Your task to perform on an android device: search for starred emails in the gmail app Image 0: 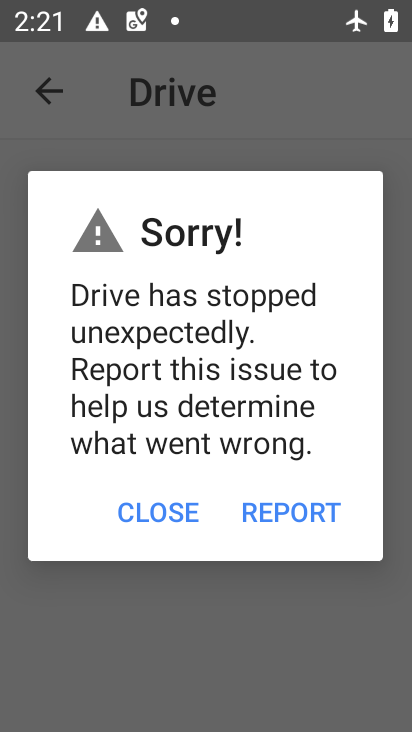
Step 0: press home button
Your task to perform on an android device: search for starred emails in the gmail app Image 1: 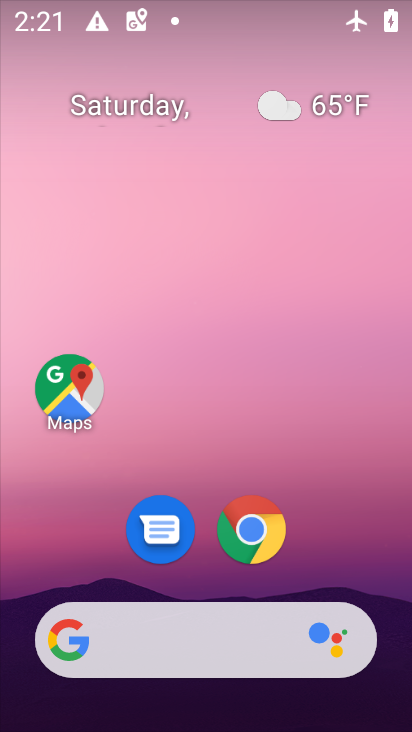
Step 1: drag from (368, 578) to (258, 104)
Your task to perform on an android device: search for starred emails in the gmail app Image 2: 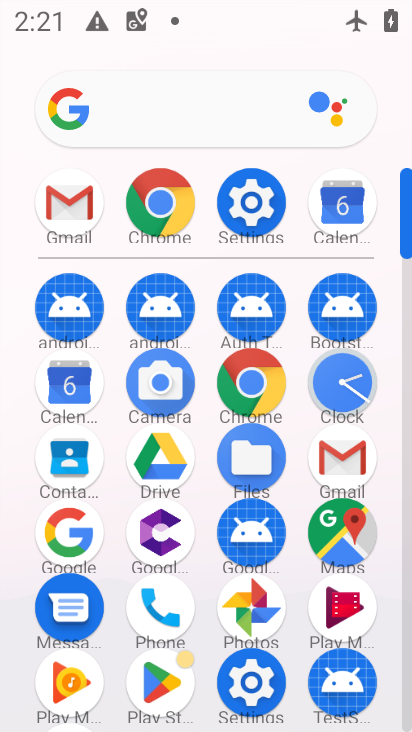
Step 2: click (77, 194)
Your task to perform on an android device: search for starred emails in the gmail app Image 3: 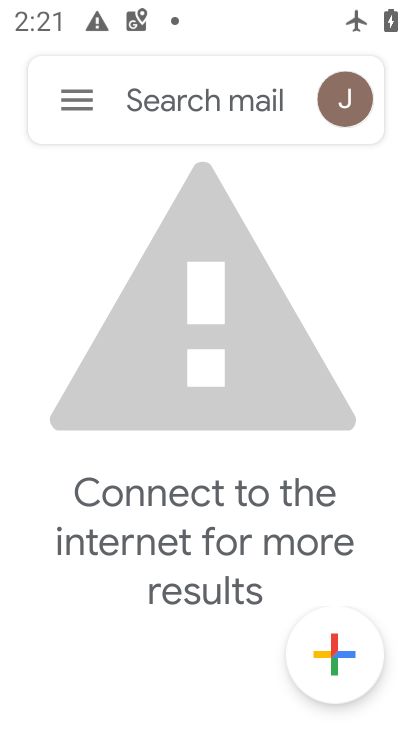
Step 3: click (88, 112)
Your task to perform on an android device: search for starred emails in the gmail app Image 4: 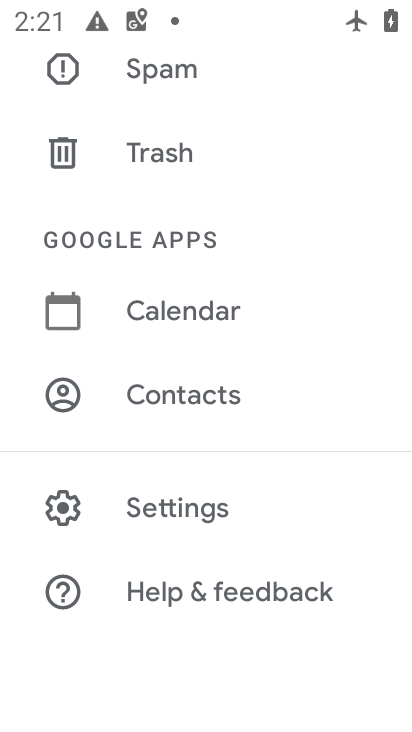
Step 4: drag from (170, 131) to (326, 583)
Your task to perform on an android device: search for starred emails in the gmail app Image 5: 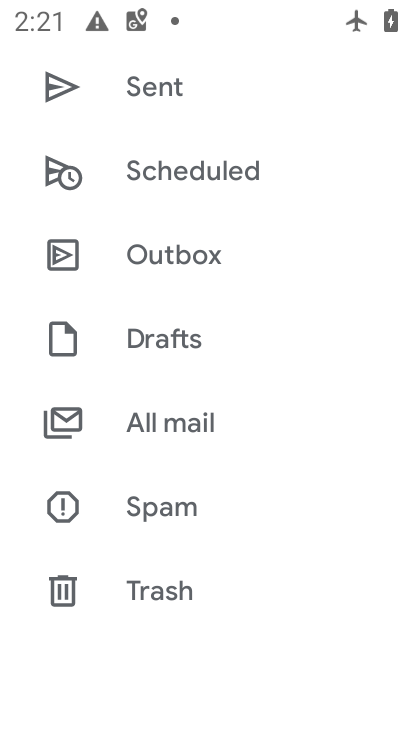
Step 5: drag from (211, 155) to (218, 692)
Your task to perform on an android device: search for starred emails in the gmail app Image 6: 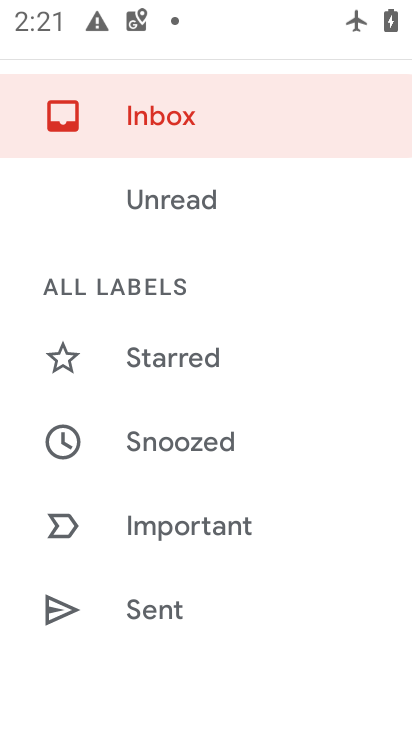
Step 6: click (217, 343)
Your task to perform on an android device: search for starred emails in the gmail app Image 7: 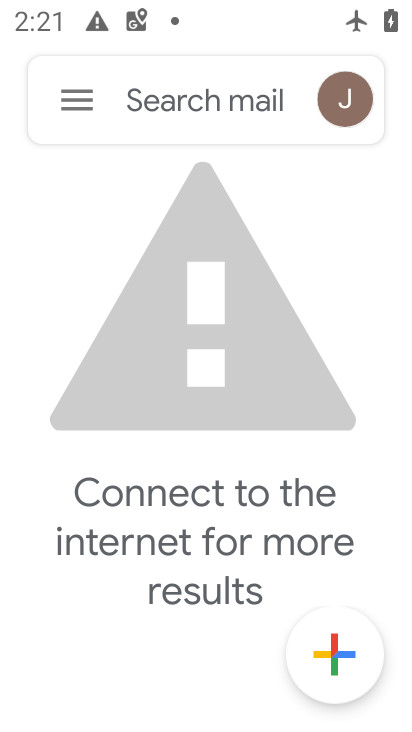
Step 7: task complete